Your task to perform on an android device: Go to Maps Image 0: 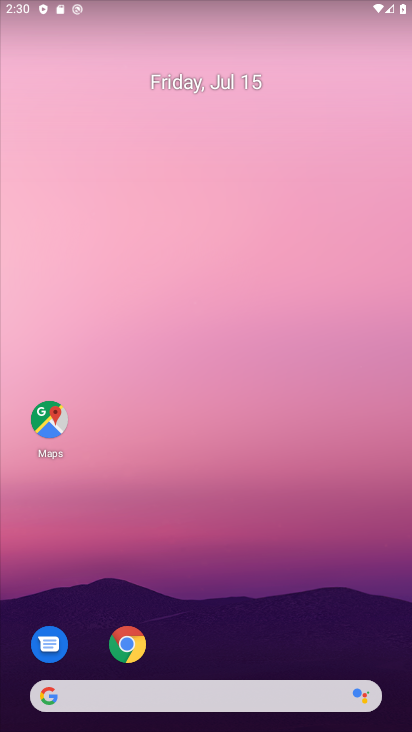
Step 0: drag from (283, 698) to (370, 5)
Your task to perform on an android device: Go to Maps Image 1: 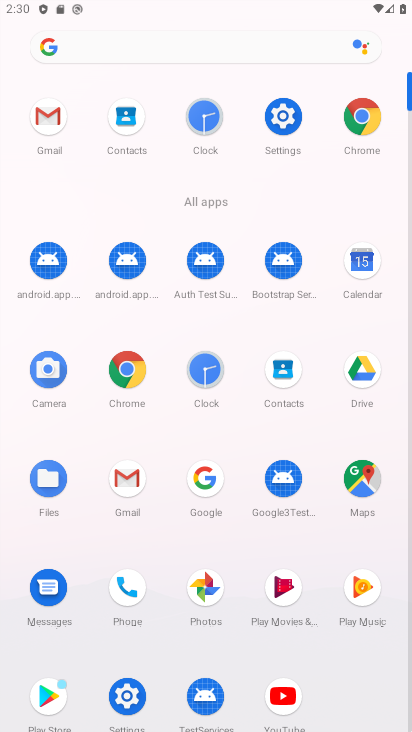
Step 1: click (363, 485)
Your task to perform on an android device: Go to Maps Image 2: 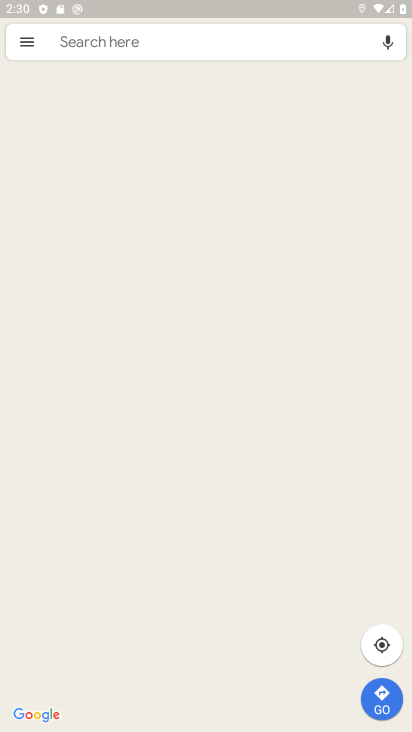
Step 2: task complete